Your task to perform on an android device: Open Maps and search for coffee Image 0: 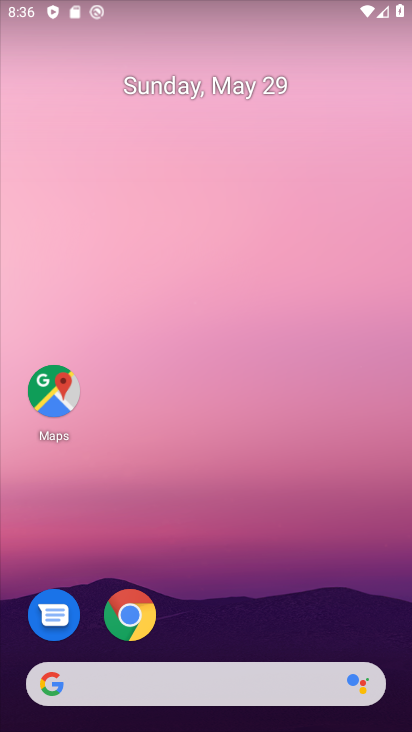
Step 0: drag from (258, 603) to (253, 84)
Your task to perform on an android device: Open Maps and search for coffee Image 1: 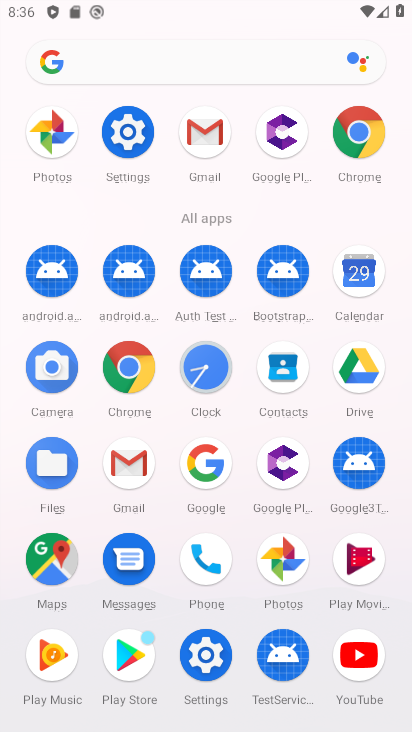
Step 1: click (49, 563)
Your task to perform on an android device: Open Maps and search for coffee Image 2: 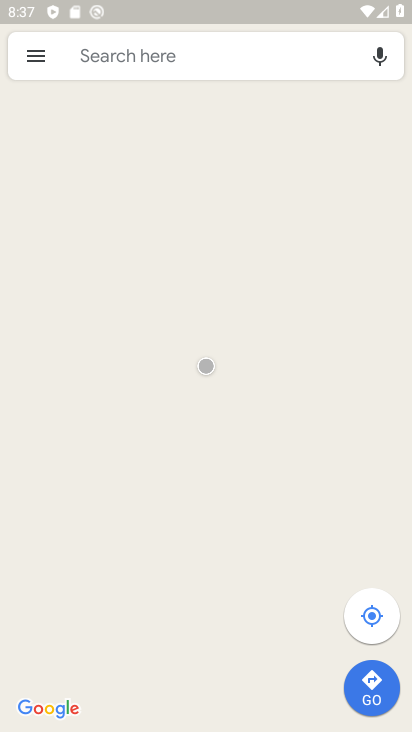
Step 2: click (204, 62)
Your task to perform on an android device: Open Maps and search for coffee Image 3: 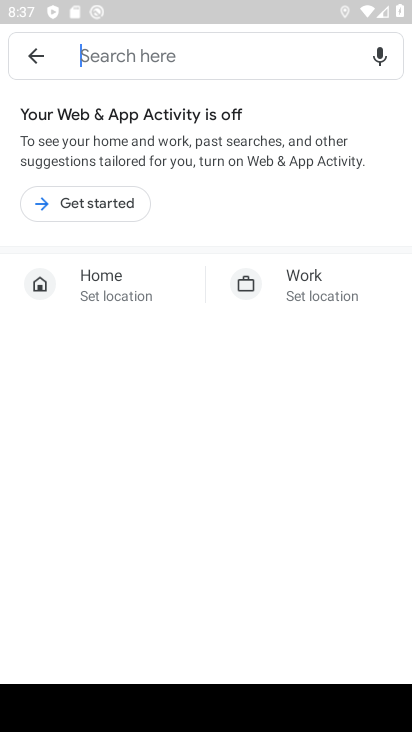
Step 3: type "coffee"
Your task to perform on an android device: Open Maps and search for coffee Image 4: 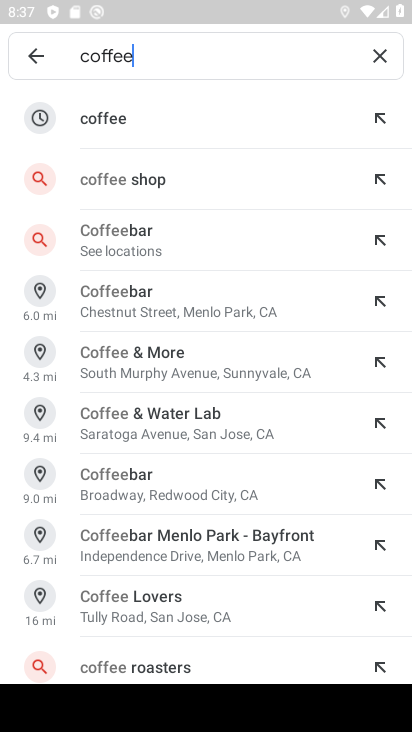
Step 4: click (106, 108)
Your task to perform on an android device: Open Maps and search for coffee Image 5: 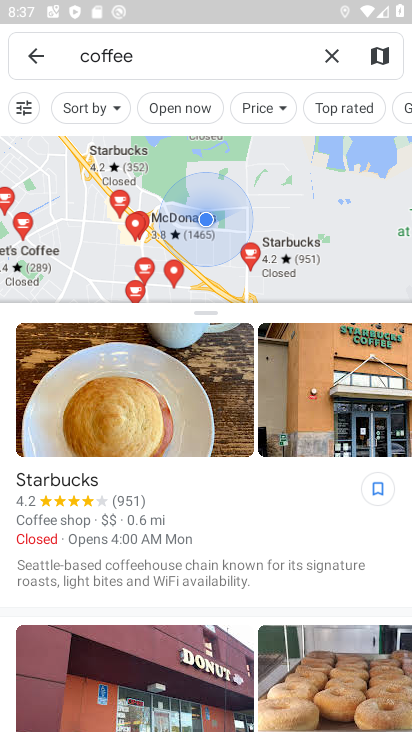
Step 5: task complete